Your task to perform on an android device: open a new tab in the chrome app Image 0: 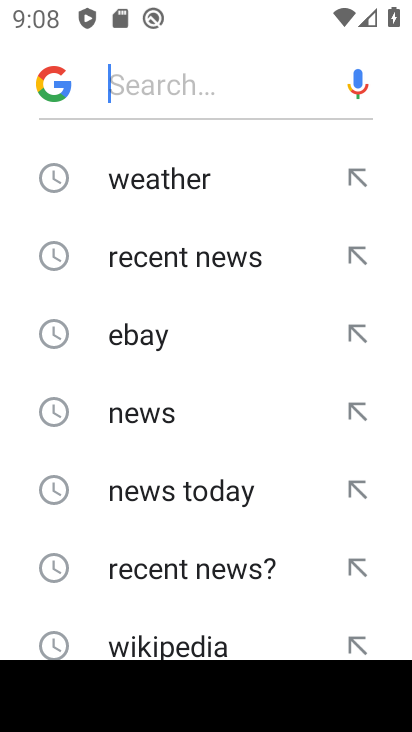
Step 0: press home button
Your task to perform on an android device: open a new tab in the chrome app Image 1: 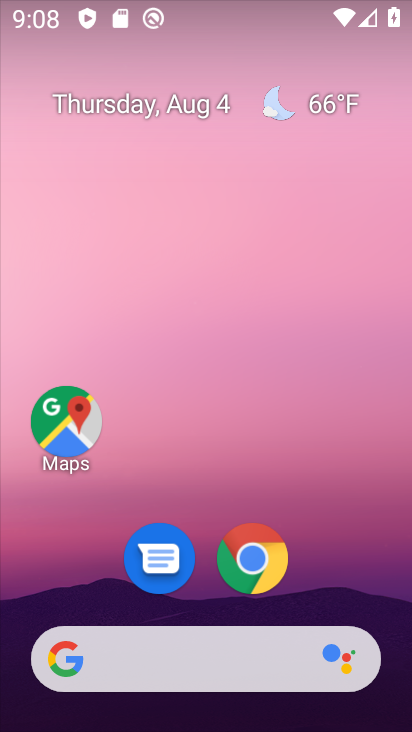
Step 1: drag from (357, 583) to (376, 25)
Your task to perform on an android device: open a new tab in the chrome app Image 2: 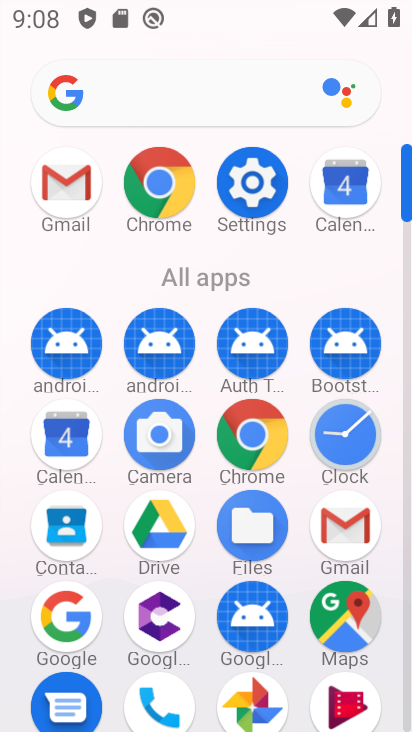
Step 2: click (244, 431)
Your task to perform on an android device: open a new tab in the chrome app Image 3: 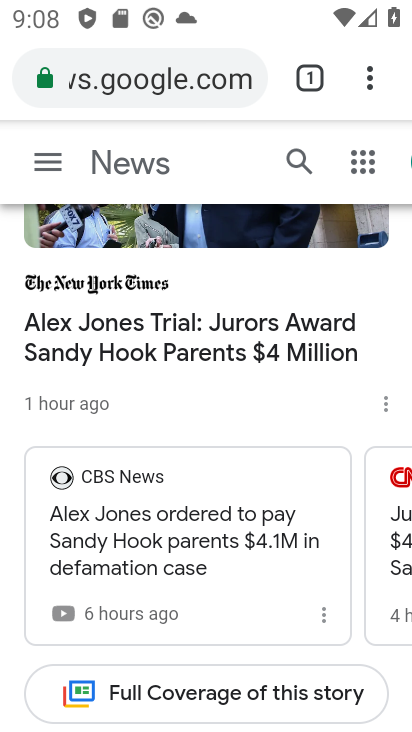
Step 3: task complete